Your task to perform on an android device: turn notification dots on Image 0: 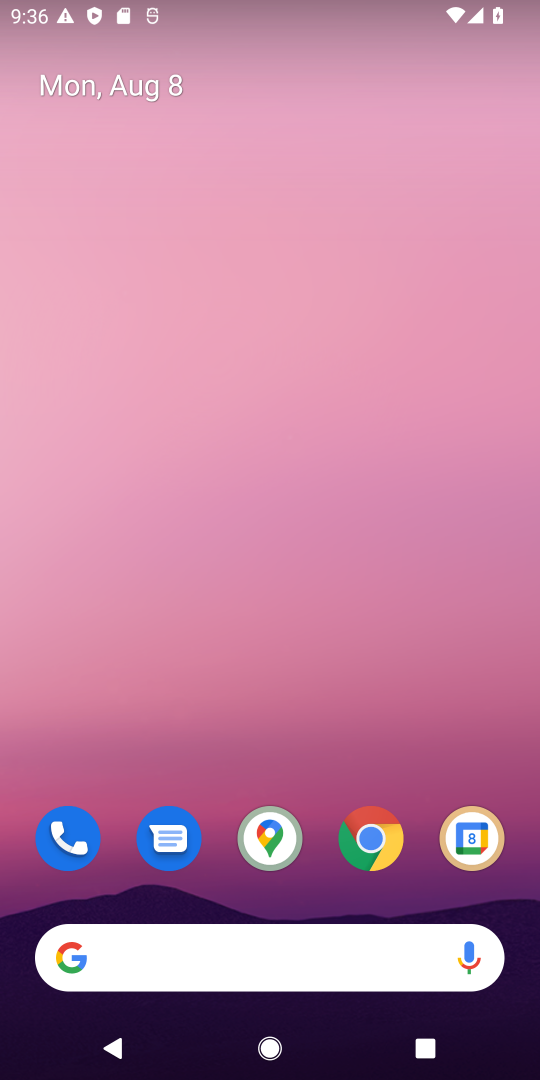
Step 0: press home button
Your task to perform on an android device: turn notification dots on Image 1: 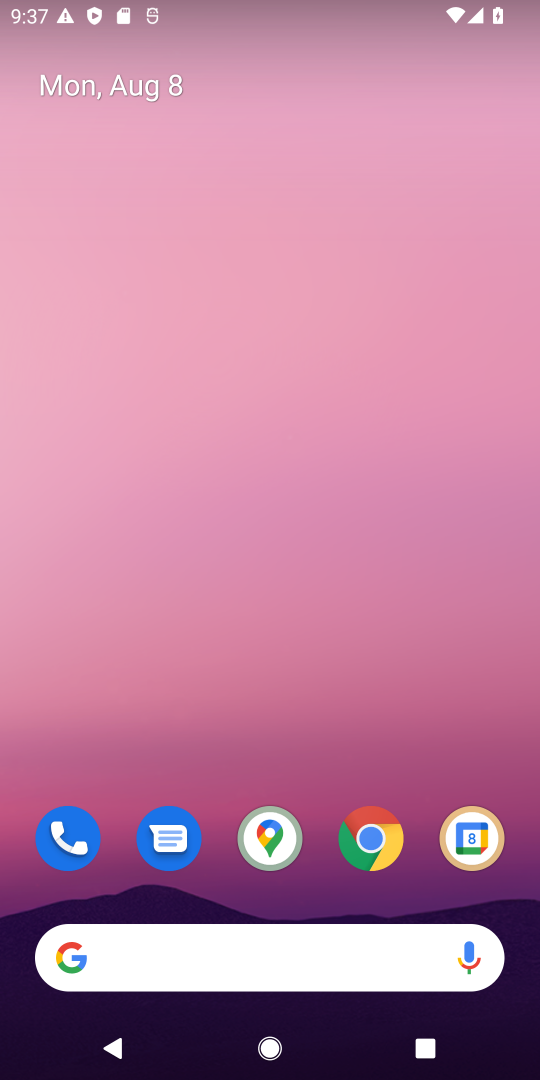
Step 1: drag from (295, 847) to (407, 40)
Your task to perform on an android device: turn notification dots on Image 2: 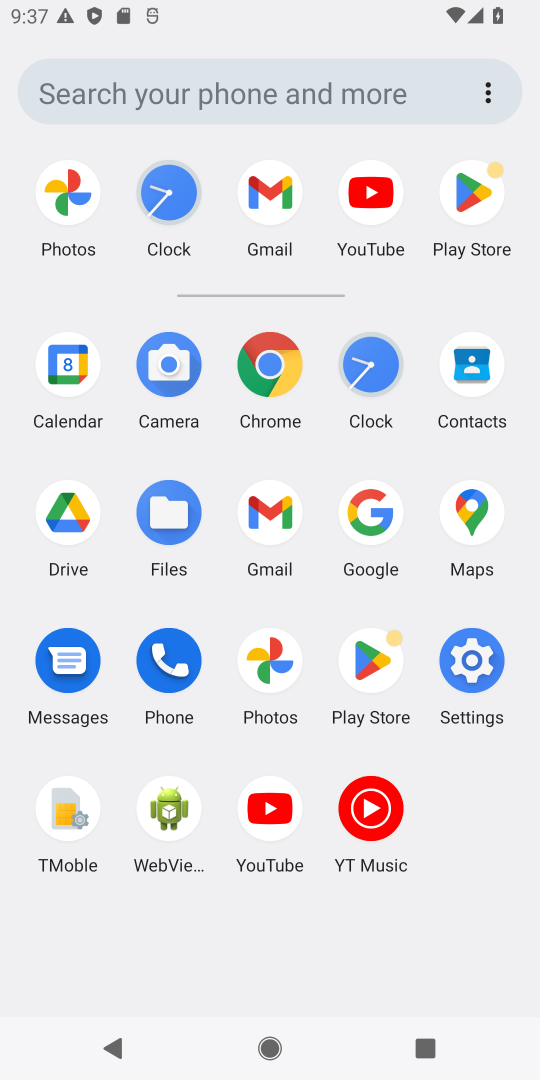
Step 2: click (477, 664)
Your task to perform on an android device: turn notification dots on Image 3: 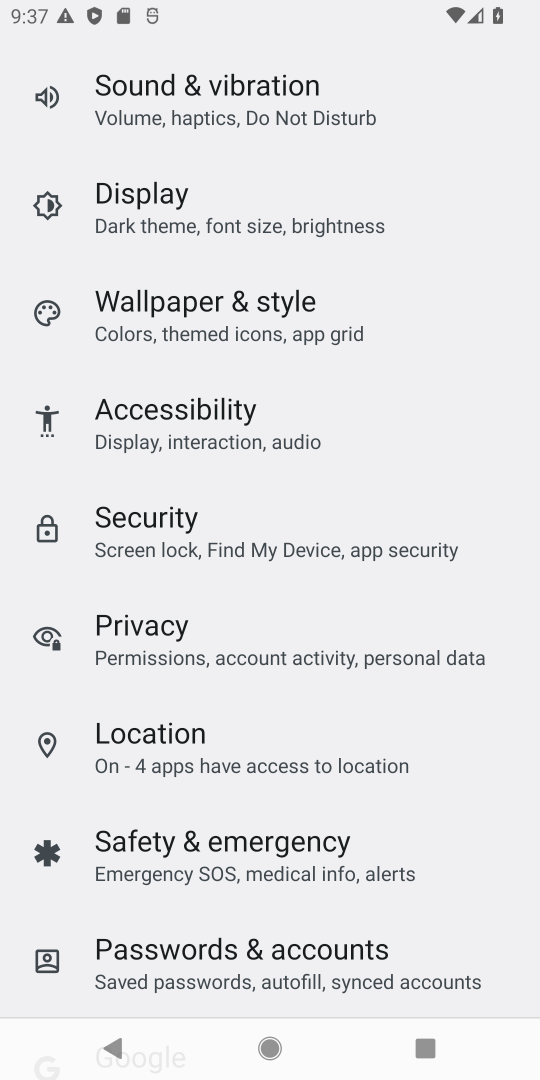
Step 3: drag from (301, 430) to (272, 969)
Your task to perform on an android device: turn notification dots on Image 4: 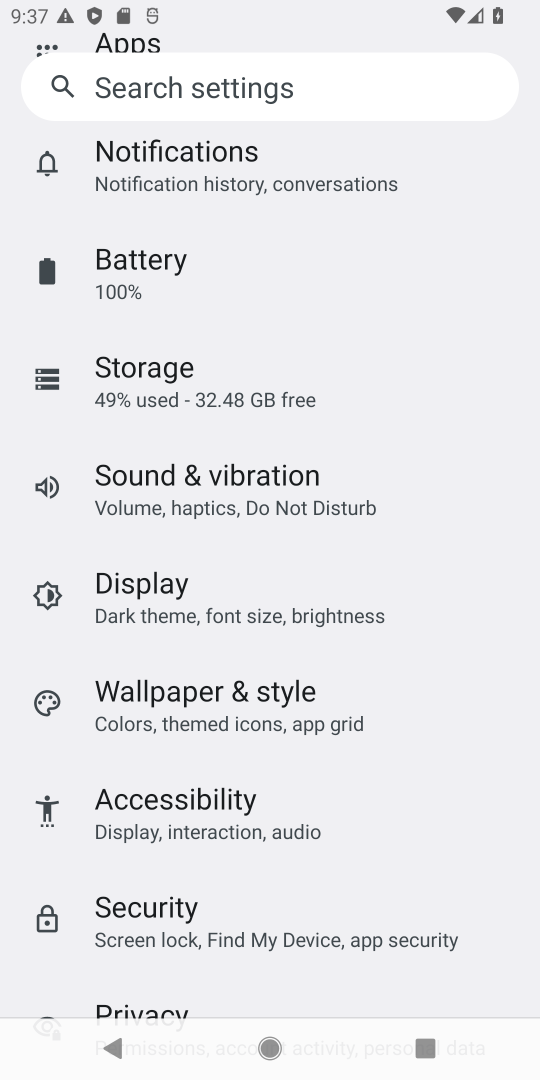
Step 4: click (149, 195)
Your task to perform on an android device: turn notification dots on Image 5: 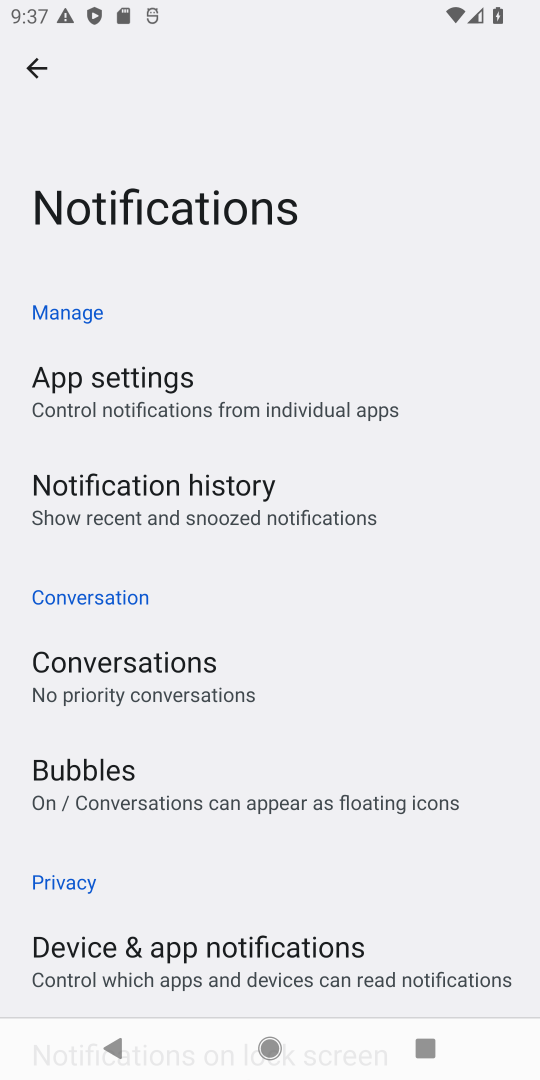
Step 5: task complete